Your task to perform on an android device: Show me popular games on the Play Store Image 0: 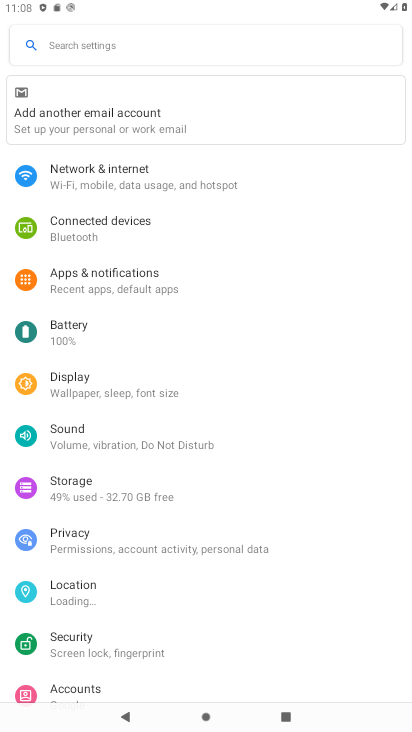
Step 0: press home button
Your task to perform on an android device: Show me popular games on the Play Store Image 1: 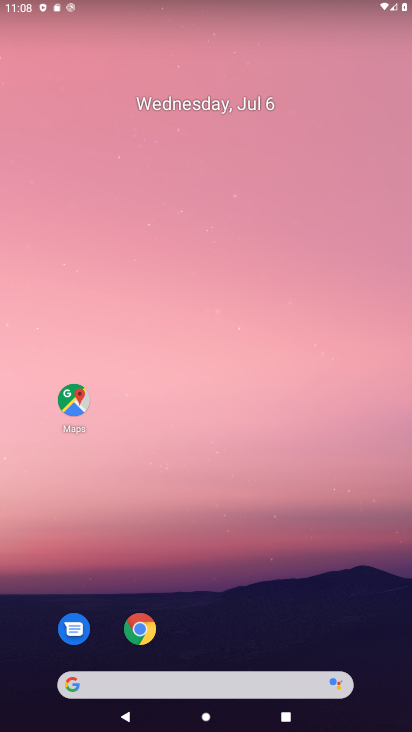
Step 1: drag from (339, 614) to (345, 121)
Your task to perform on an android device: Show me popular games on the Play Store Image 2: 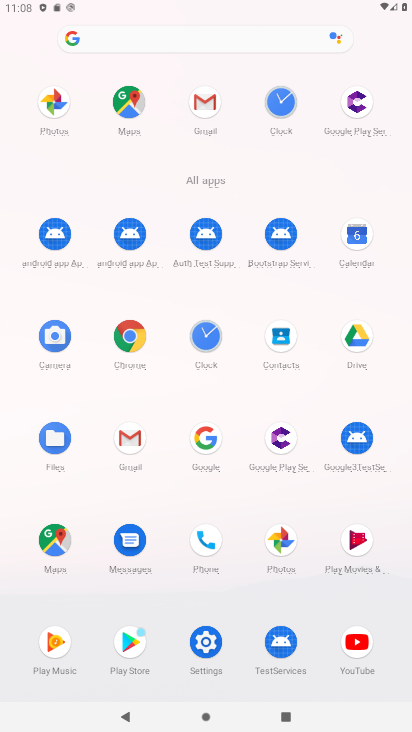
Step 2: click (131, 642)
Your task to perform on an android device: Show me popular games on the Play Store Image 3: 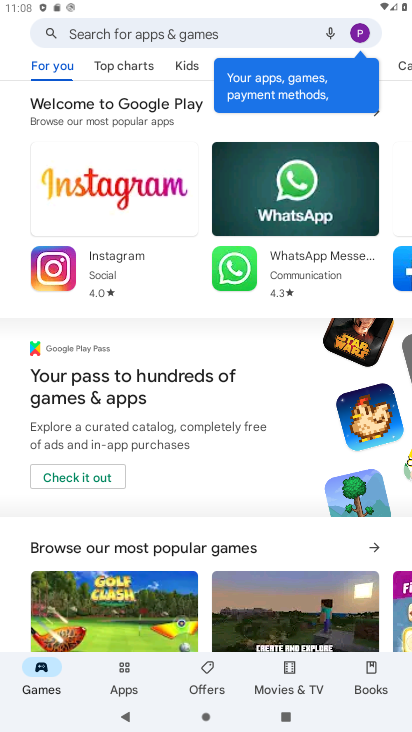
Step 3: task complete